Your task to perform on an android device: Open calendar and show me the first week of next month Image 0: 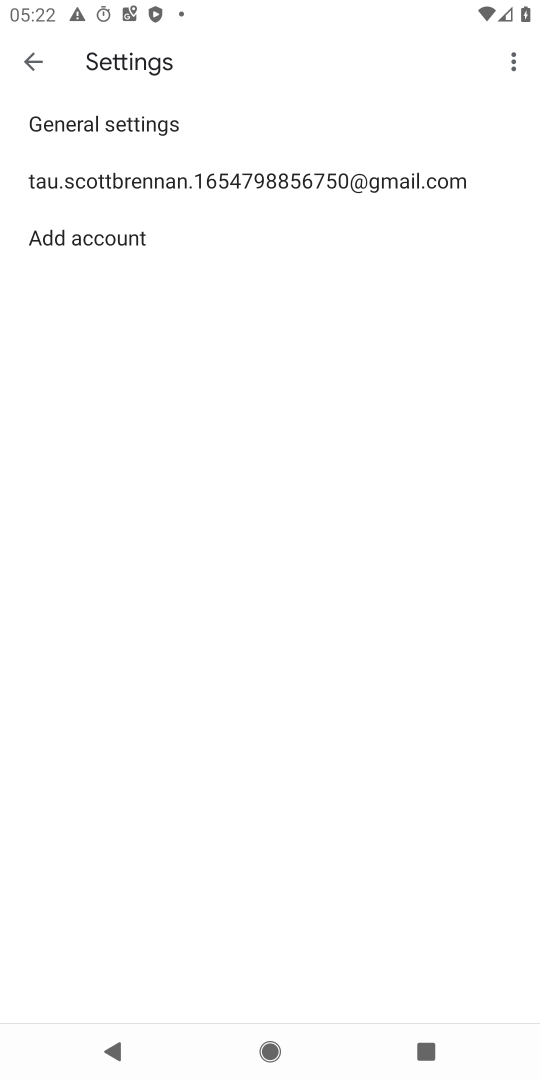
Step 0: press home button
Your task to perform on an android device: Open calendar and show me the first week of next month Image 1: 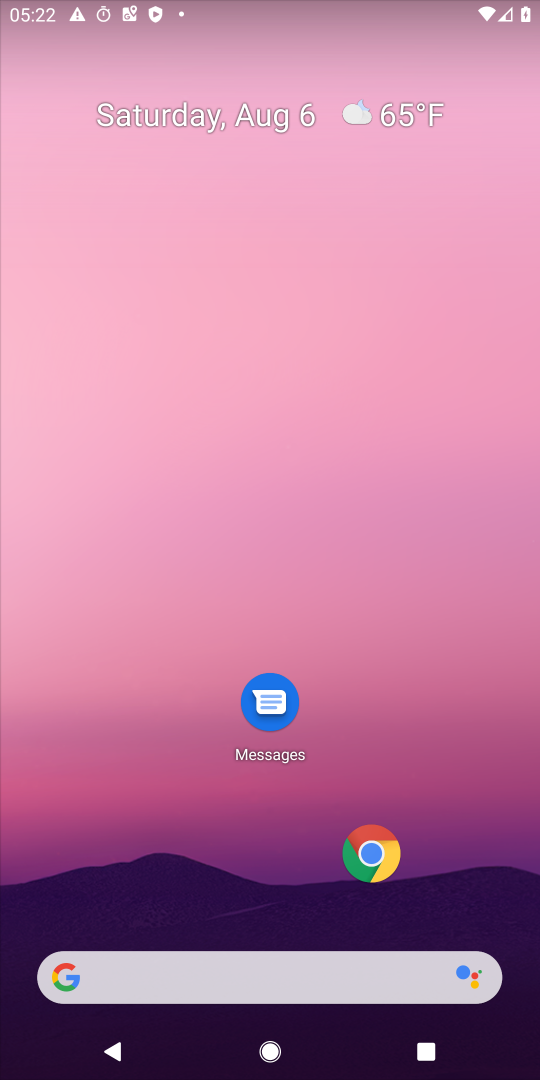
Step 1: drag from (185, 909) to (158, 412)
Your task to perform on an android device: Open calendar and show me the first week of next month Image 2: 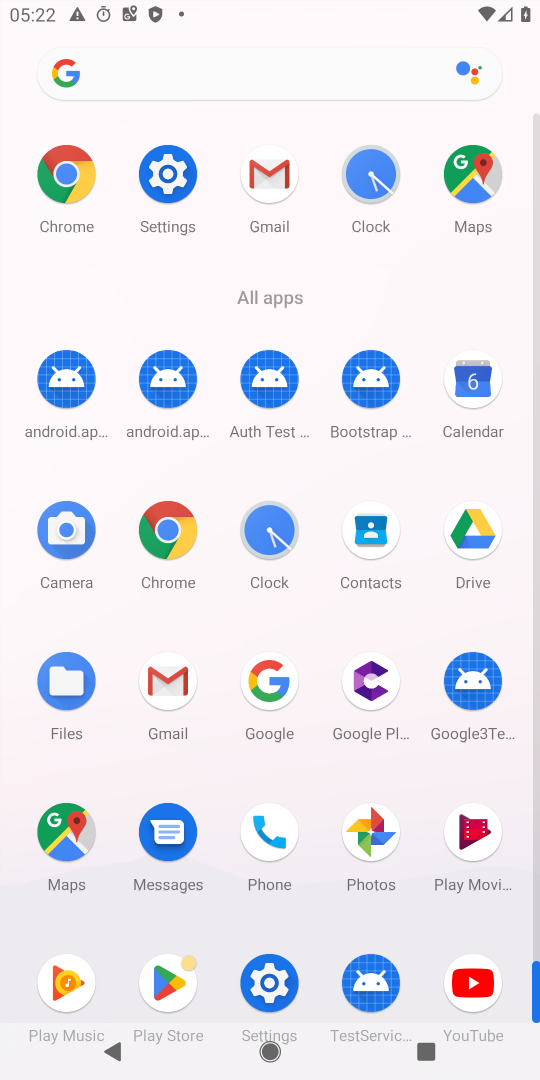
Step 2: click (453, 396)
Your task to perform on an android device: Open calendar and show me the first week of next month Image 3: 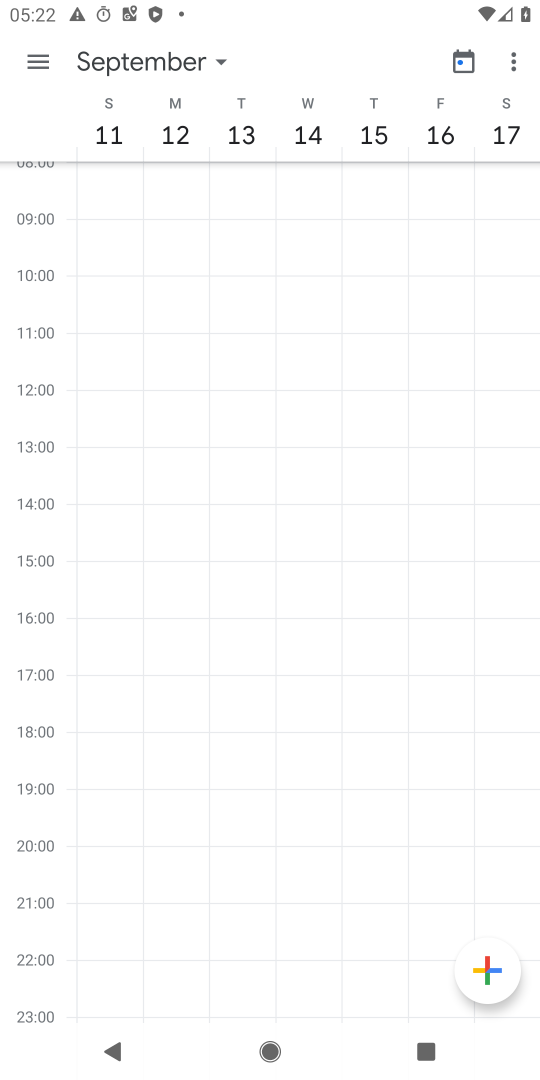
Step 3: click (145, 67)
Your task to perform on an android device: Open calendar and show me the first week of next month Image 4: 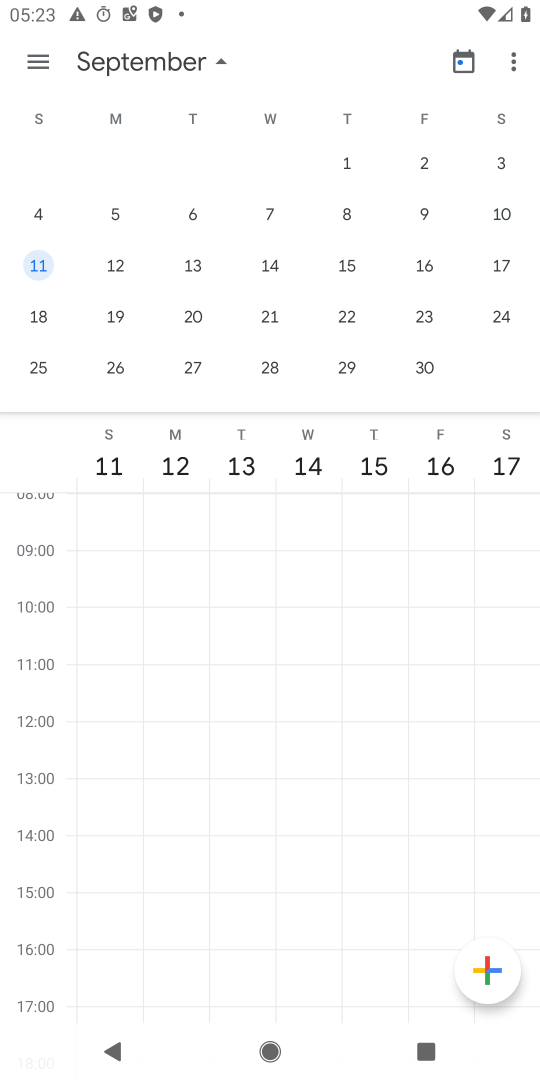
Step 4: click (214, 192)
Your task to perform on an android device: Open calendar and show me the first week of next month Image 5: 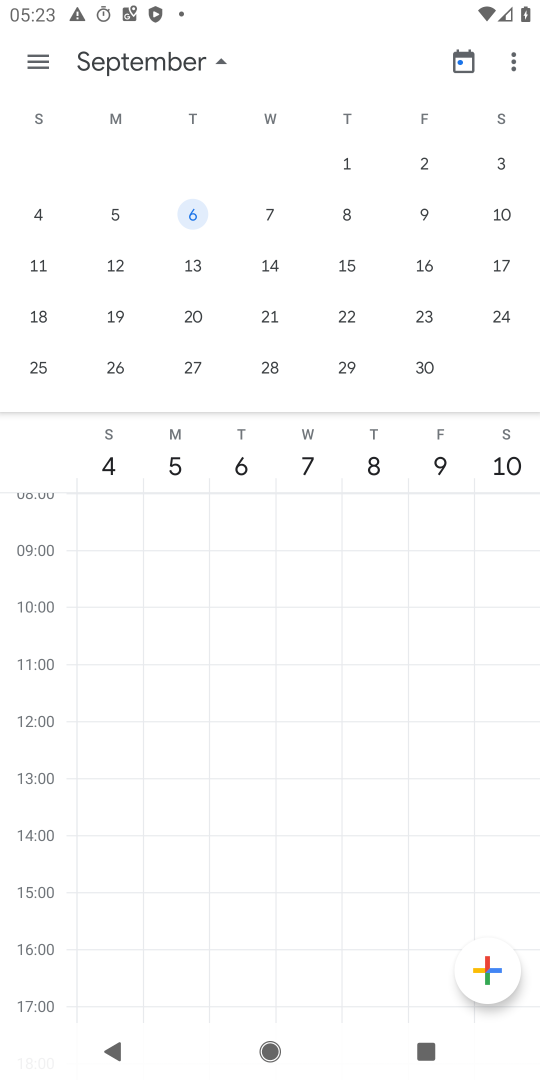
Step 5: task complete